Your task to perform on an android device: change the clock style Image 0: 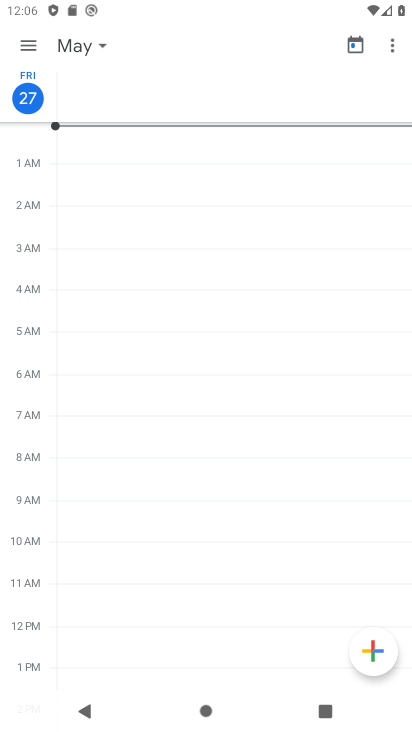
Step 0: press home button
Your task to perform on an android device: change the clock style Image 1: 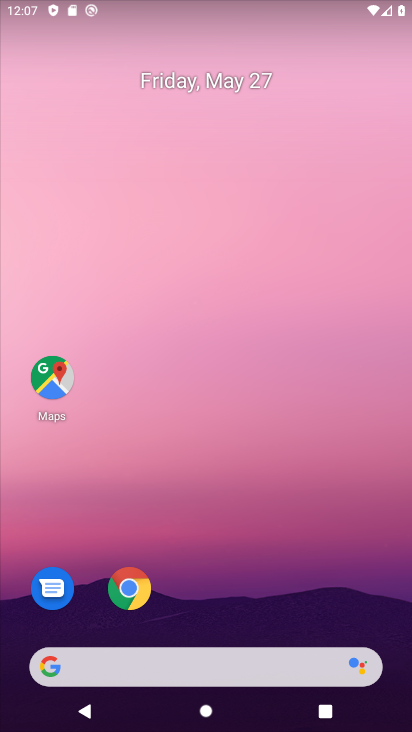
Step 1: drag from (232, 585) to (193, 48)
Your task to perform on an android device: change the clock style Image 2: 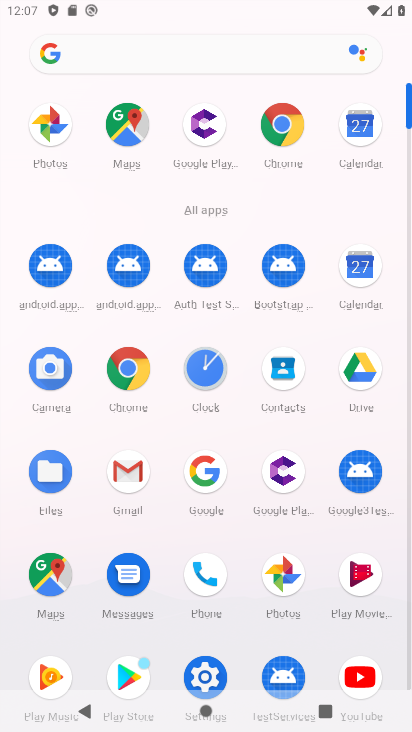
Step 2: click (202, 375)
Your task to perform on an android device: change the clock style Image 3: 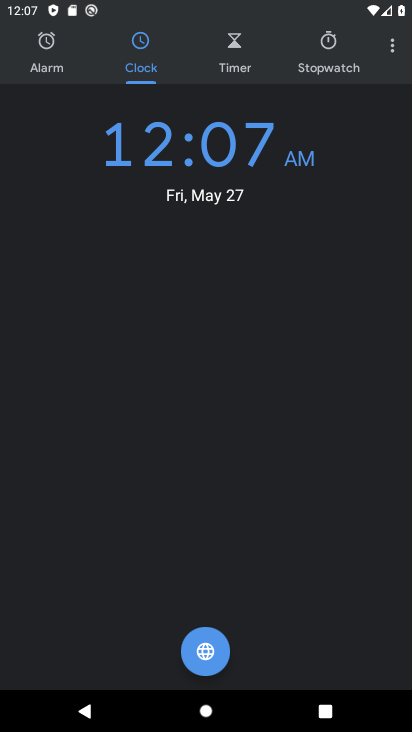
Step 3: click (388, 54)
Your task to perform on an android device: change the clock style Image 4: 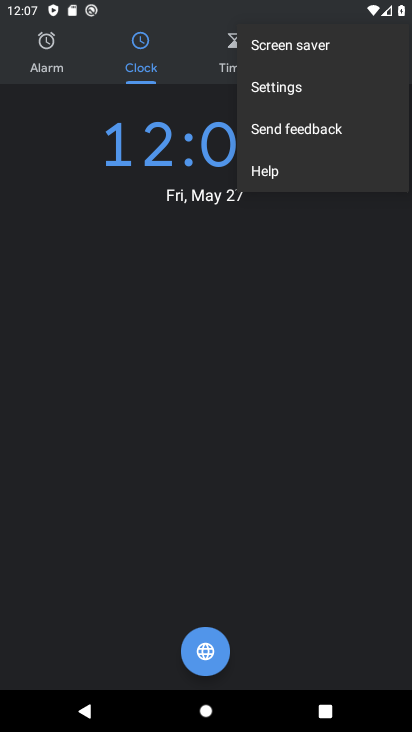
Step 4: click (334, 91)
Your task to perform on an android device: change the clock style Image 5: 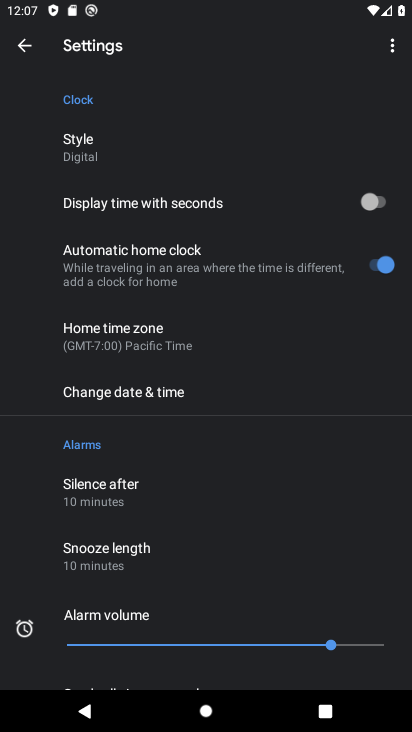
Step 5: click (141, 154)
Your task to perform on an android device: change the clock style Image 6: 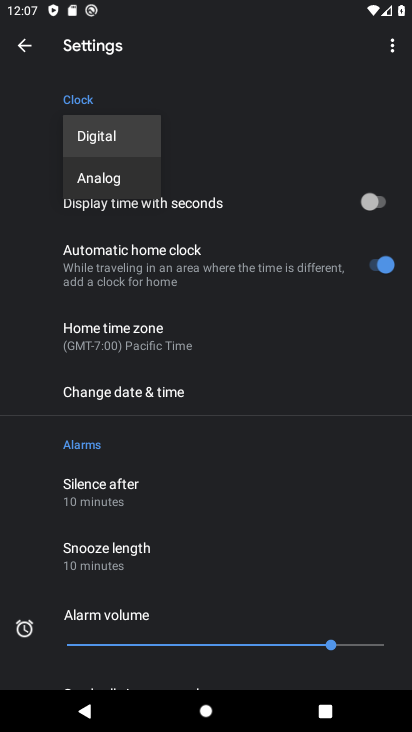
Step 6: click (136, 176)
Your task to perform on an android device: change the clock style Image 7: 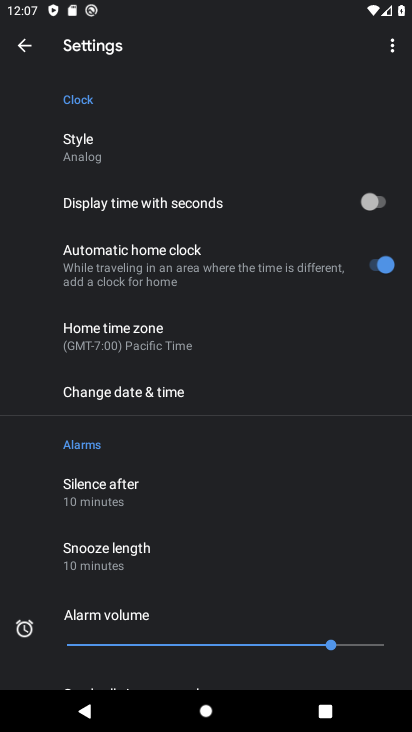
Step 7: click (25, 43)
Your task to perform on an android device: change the clock style Image 8: 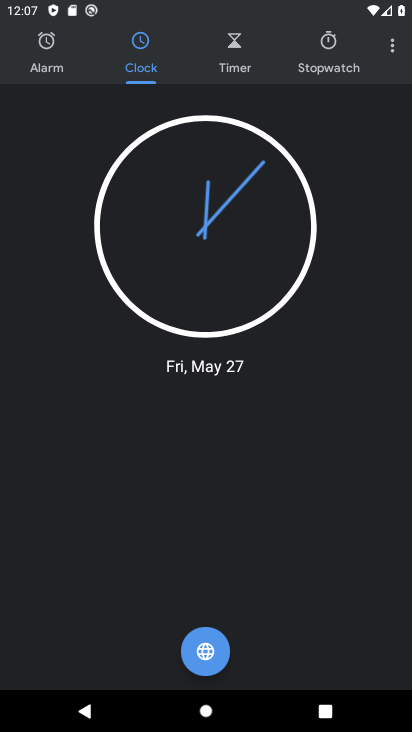
Step 8: task complete